Your task to perform on an android device: Open settings Image 0: 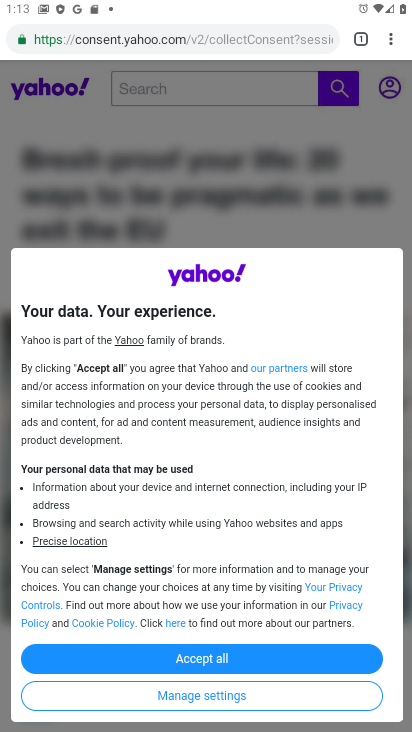
Step 0: press home button
Your task to perform on an android device: Open settings Image 1: 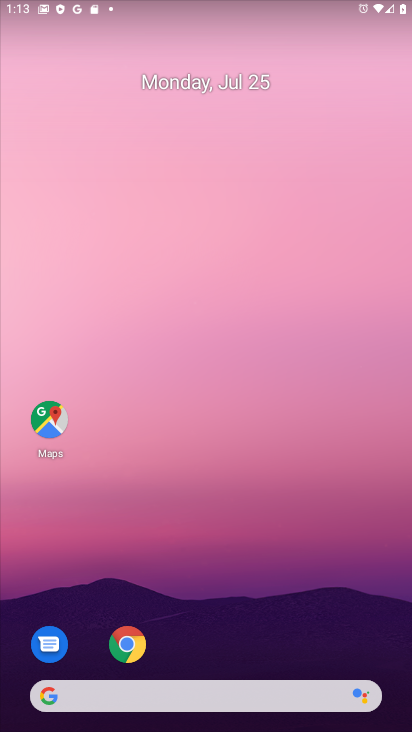
Step 1: drag from (250, 630) to (358, 14)
Your task to perform on an android device: Open settings Image 2: 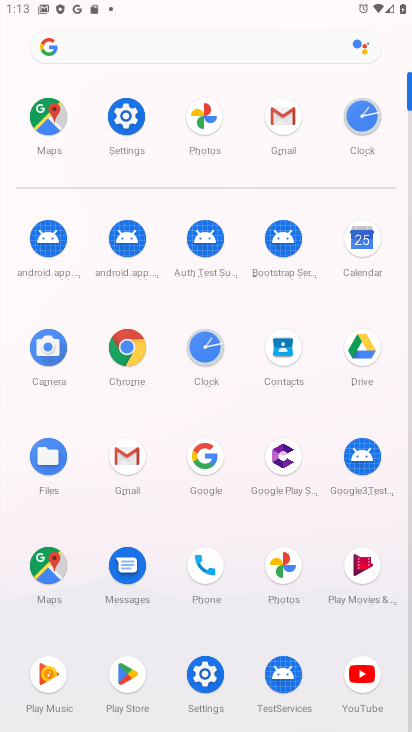
Step 2: click (120, 127)
Your task to perform on an android device: Open settings Image 3: 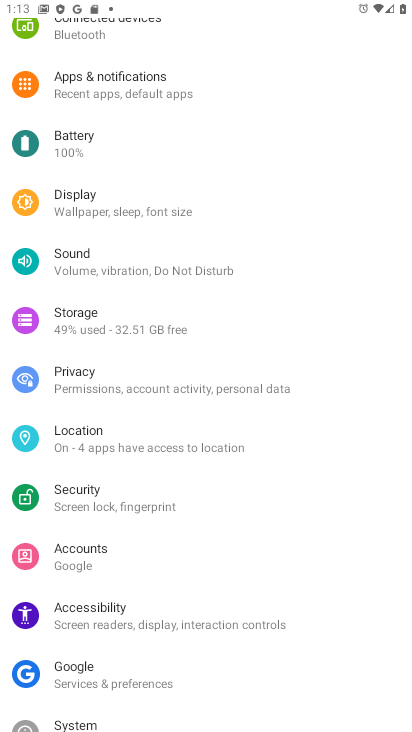
Step 3: task complete